Your task to perform on an android device: turn vacation reply on in the gmail app Image 0: 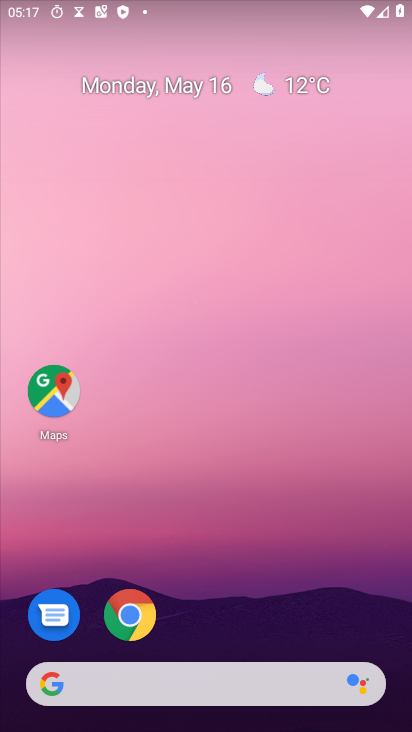
Step 0: drag from (294, 498) to (170, 108)
Your task to perform on an android device: turn vacation reply on in the gmail app Image 1: 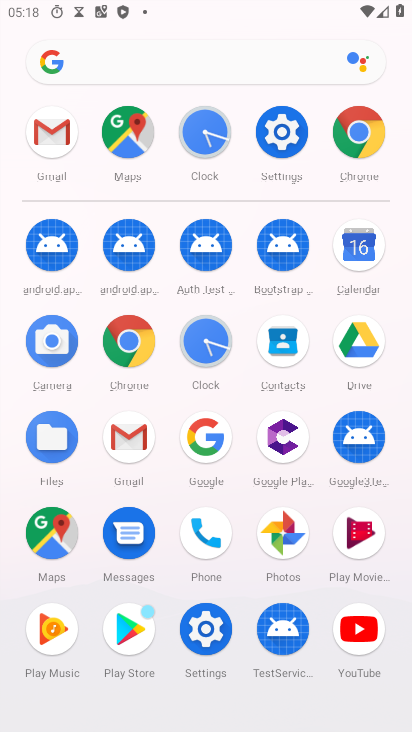
Step 1: click (138, 436)
Your task to perform on an android device: turn vacation reply on in the gmail app Image 2: 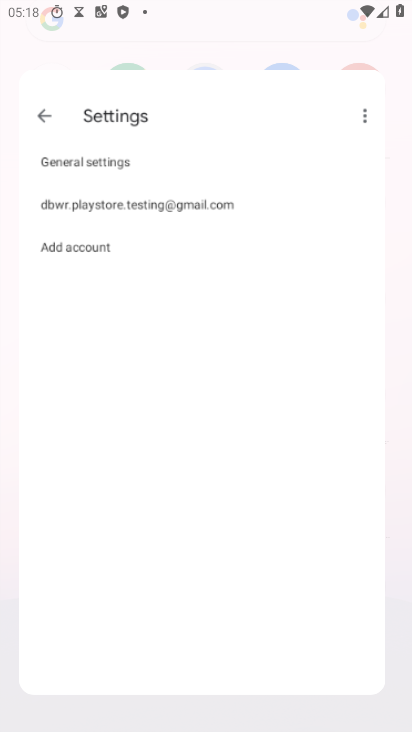
Step 2: click (138, 436)
Your task to perform on an android device: turn vacation reply on in the gmail app Image 3: 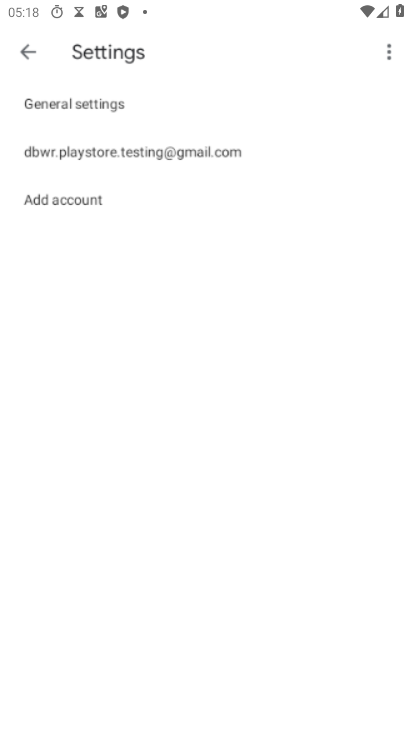
Step 3: click (137, 437)
Your task to perform on an android device: turn vacation reply on in the gmail app Image 4: 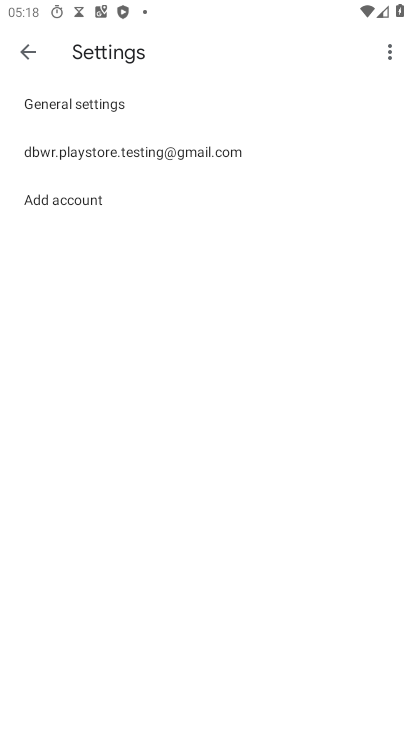
Step 4: click (112, 149)
Your task to perform on an android device: turn vacation reply on in the gmail app Image 5: 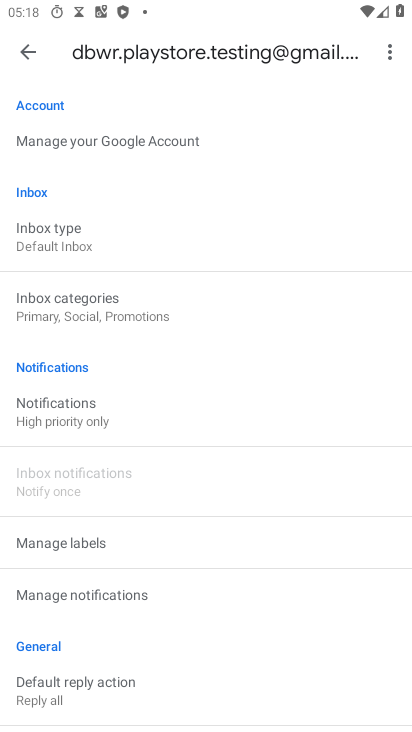
Step 5: drag from (126, 604) to (145, 126)
Your task to perform on an android device: turn vacation reply on in the gmail app Image 6: 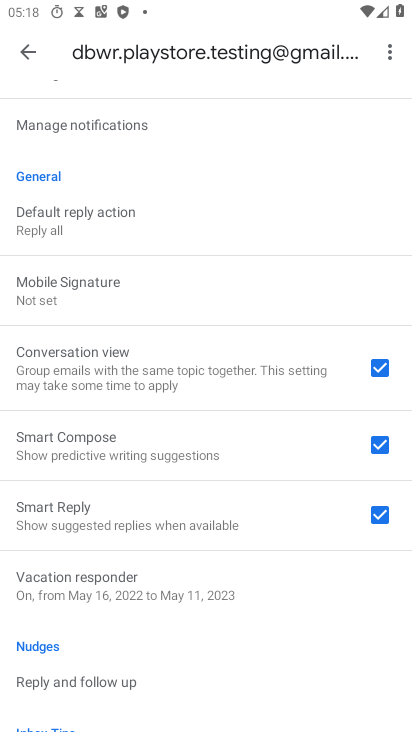
Step 6: click (132, 584)
Your task to perform on an android device: turn vacation reply on in the gmail app Image 7: 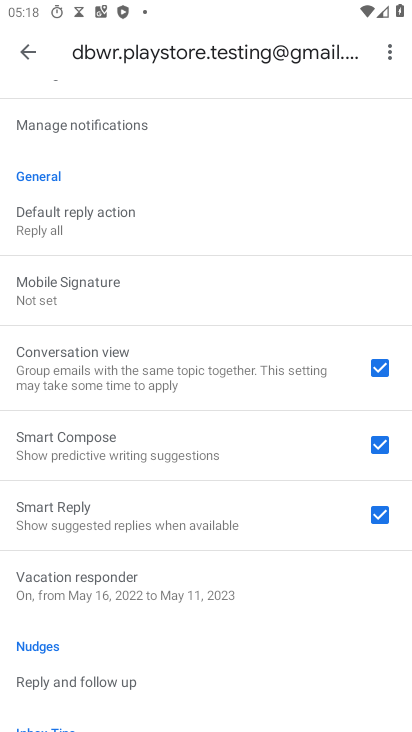
Step 7: click (132, 584)
Your task to perform on an android device: turn vacation reply on in the gmail app Image 8: 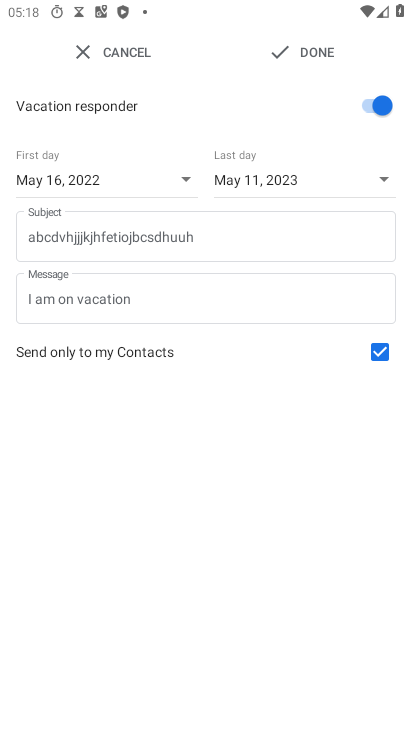
Step 8: click (378, 104)
Your task to perform on an android device: turn vacation reply on in the gmail app Image 9: 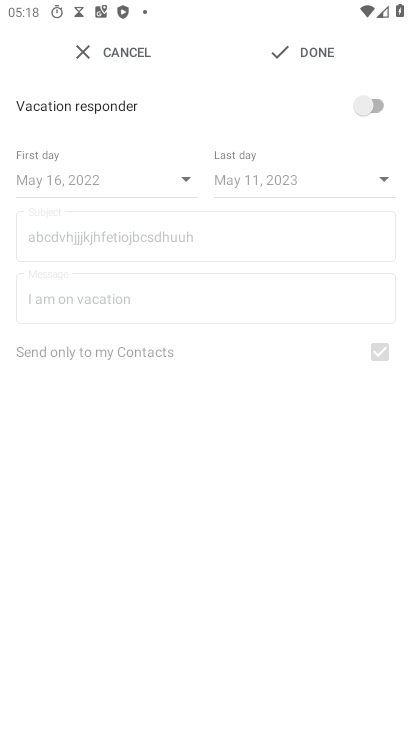
Step 9: task complete